Your task to perform on an android device: toggle airplane mode Image 0: 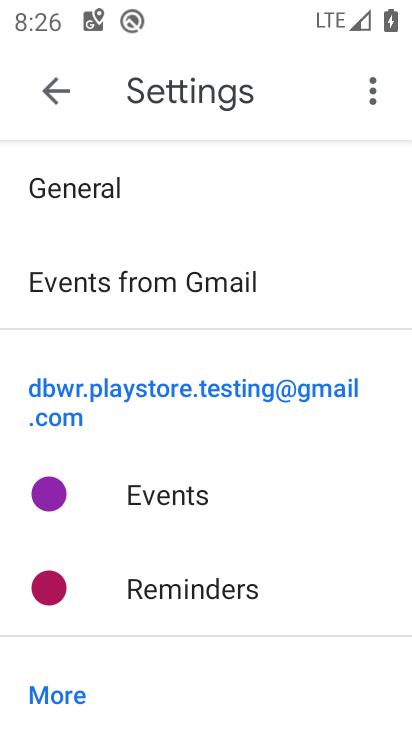
Step 0: drag from (294, 11) to (295, 556)
Your task to perform on an android device: toggle airplane mode Image 1: 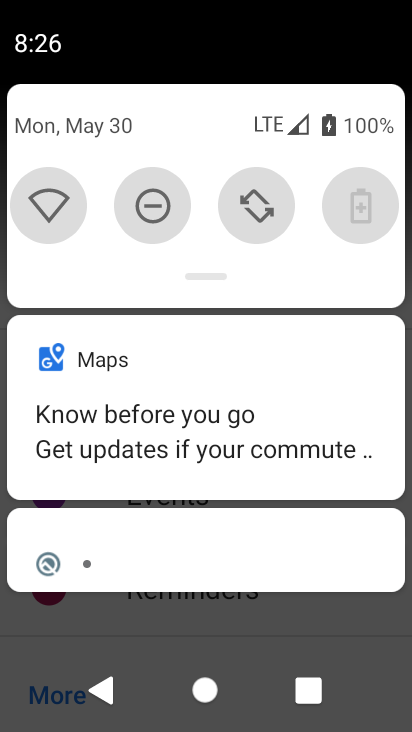
Step 1: drag from (229, 255) to (200, 654)
Your task to perform on an android device: toggle airplane mode Image 2: 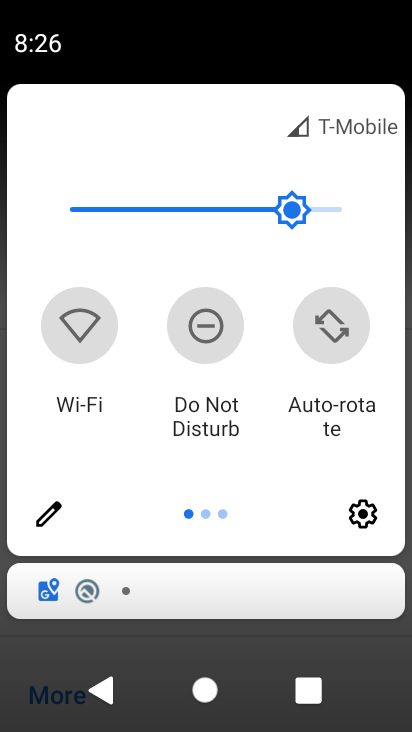
Step 2: drag from (337, 432) to (12, 437)
Your task to perform on an android device: toggle airplane mode Image 3: 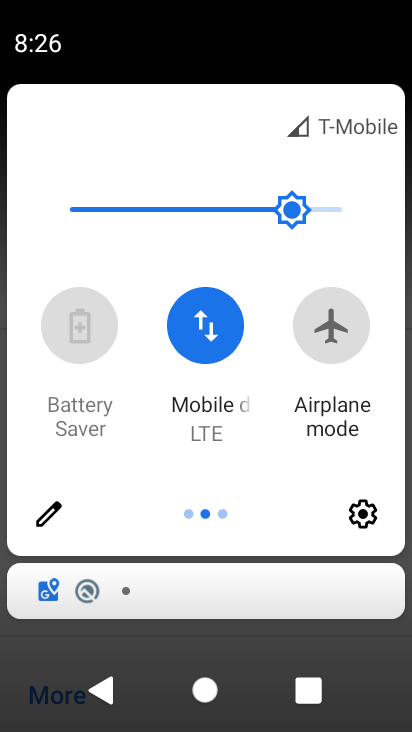
Step 3: click (317, 342)
Your task to perform on an android device: toggle airplane mode Image 4: 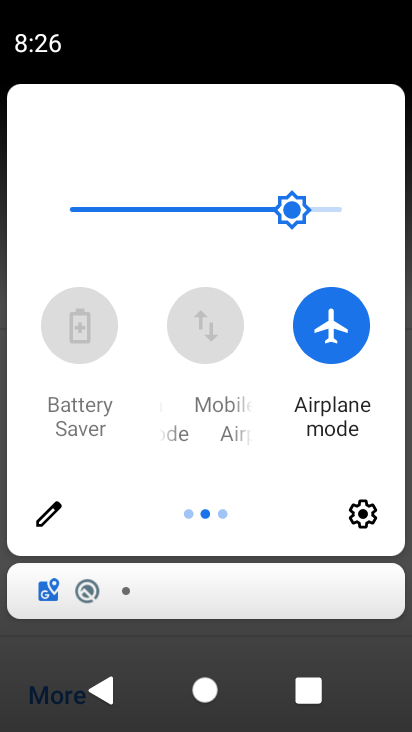
Step 4: task complete